Your task to perform on an android device: Open the map Image 0: 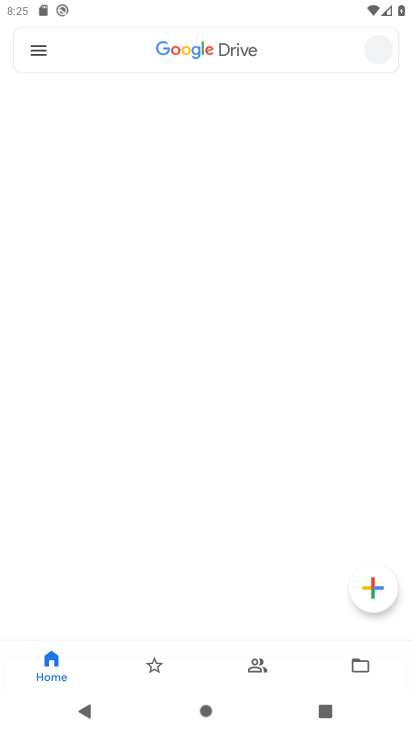
Step 0: press home button
Your task to perform on an android device: Open the map Image 1: 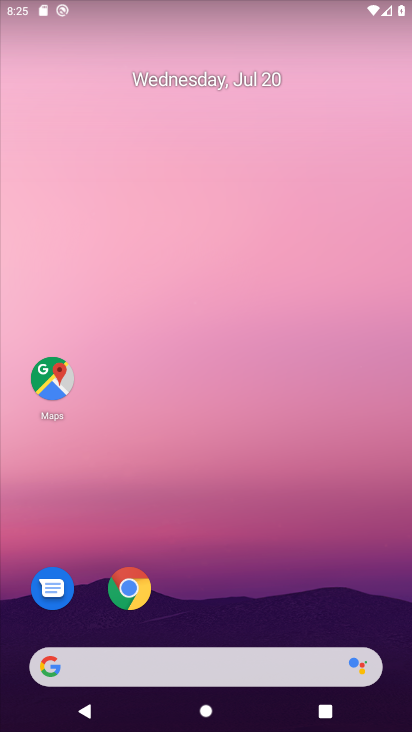
Step 1: click (51, 380)
Your task to perform on an android device: Open the map Image 2: 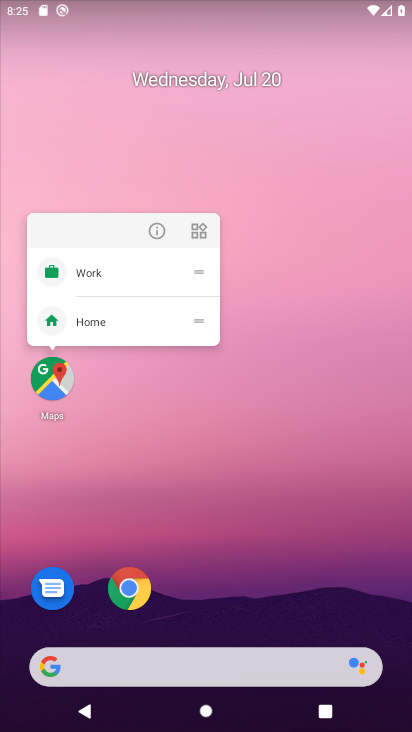
Step 2: click (51, 377)
Your task to perform on an android device: Open the map Image 3: 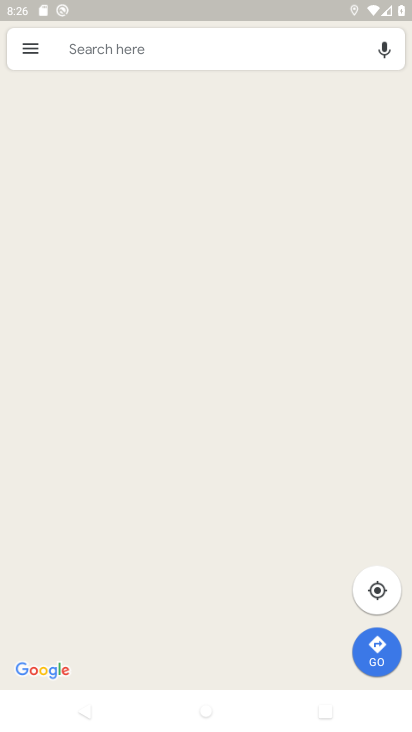
Step 3: click (25, 49)
Your task to perform on an android device: Open the map Image 4: 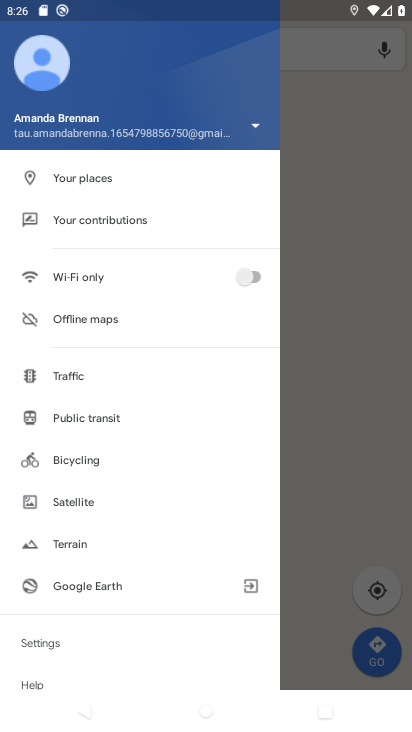
Step 4: task complete